Your task to perform on an android device: Show me the alarms in the clock app Image 0: 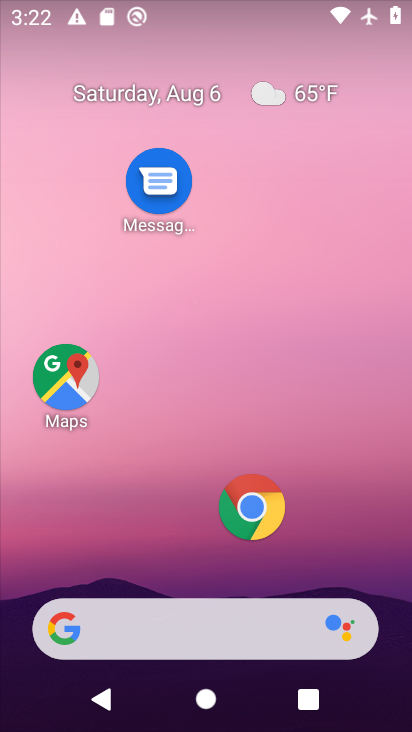
Step 0: drag from (163, 556) to (188, 44)
Your task to perform on an android device: Show me the alarms in the clock app Image 1: 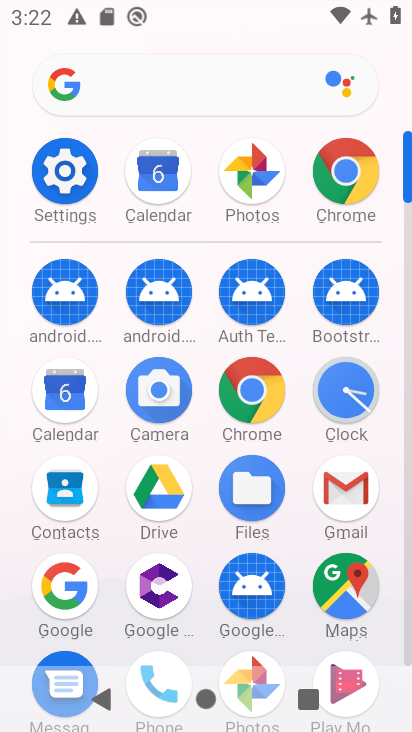
Step 1: click (346, 392)
Your task to perform on an android device: Show me the alarms in the clock app Image 2: 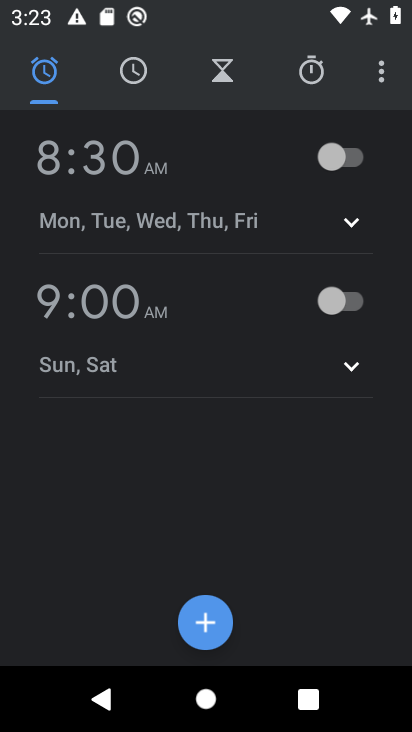
Step 2: task complete